Your task to perform on an android device: Open Google Maps and go to "Timeline" Image 0: 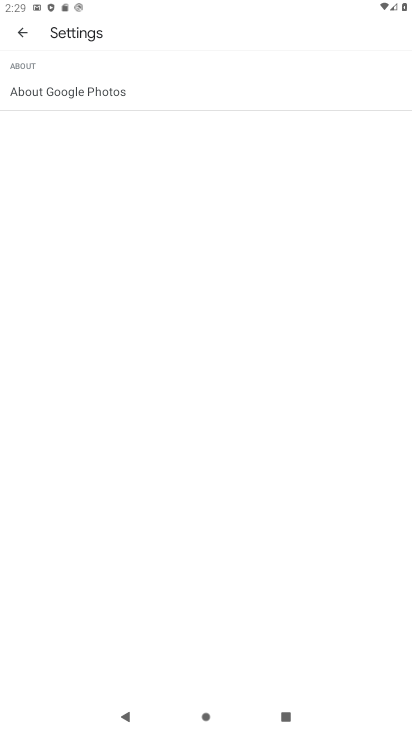
Step 0: press home button
Your task to perform on an android device: Open Google Maps and go to "Timeline" Image 1: 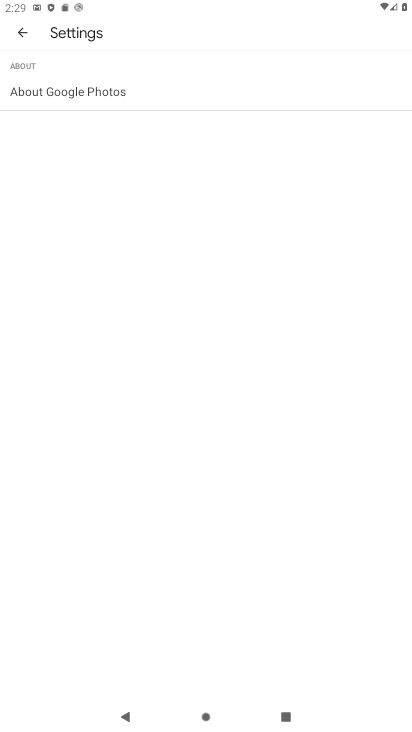
Step 1: drag from (312, 572) to (259, 124)
Your task to perform on an android device: Open Google Maps and go to "Timeline" Image 2: 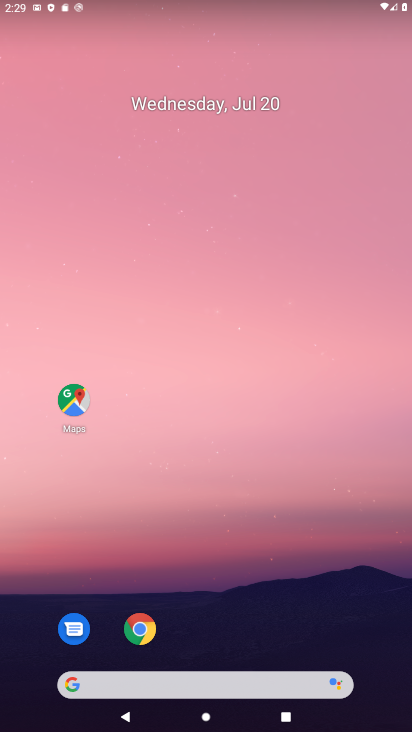
Step 2: click (66, 408)
Your task to perform on an android device: Open Google Maps and go to "Timeline" Image 3: 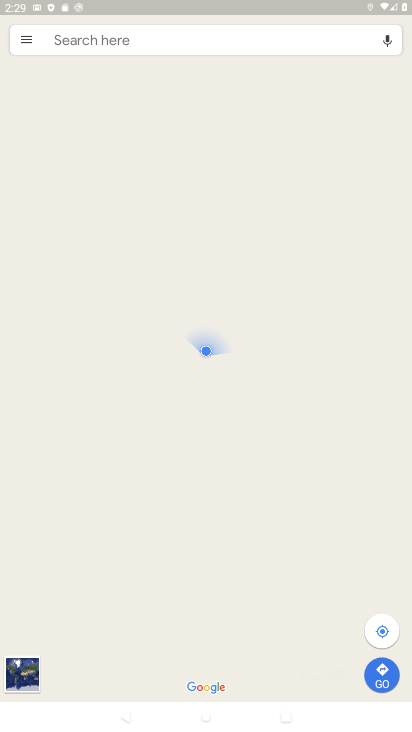
Step 3: click (21, 45)
Your task to perform on an android device: Open Google Maps and go to "Timeline" Image 4: 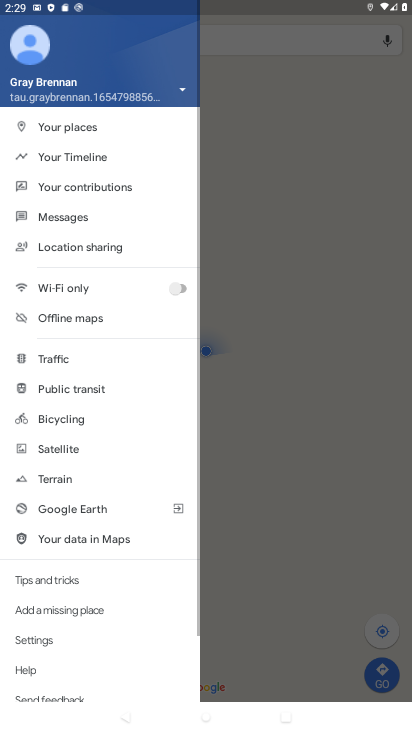
Step 4: click (70, 157)
Your task to perform on an android device: Open Google Maps and go to "Timeline" Image 5: 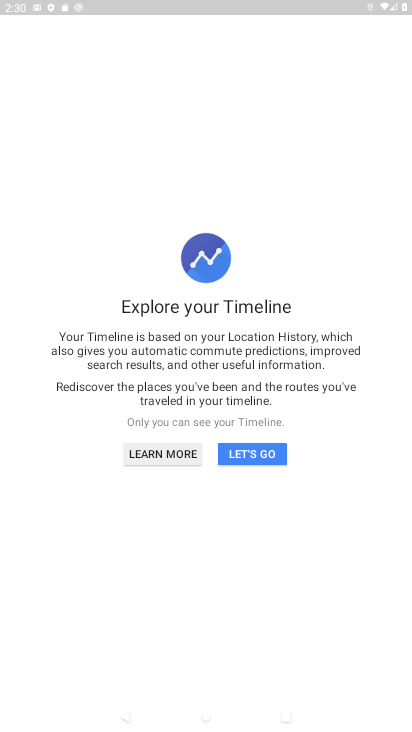
Step 5: click (242, 446)
Your task to perform on an android device: Open Google Maps and go to "Timeline" Image 6: 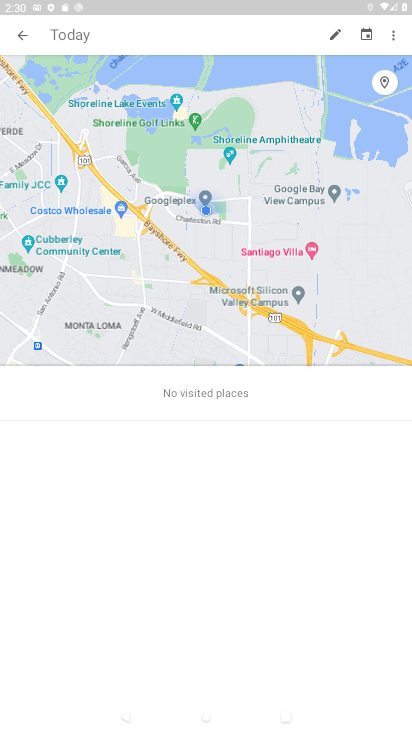
Step 6: task complete